Your task to perform on an android device: see creations saved in the google photos Image 0: 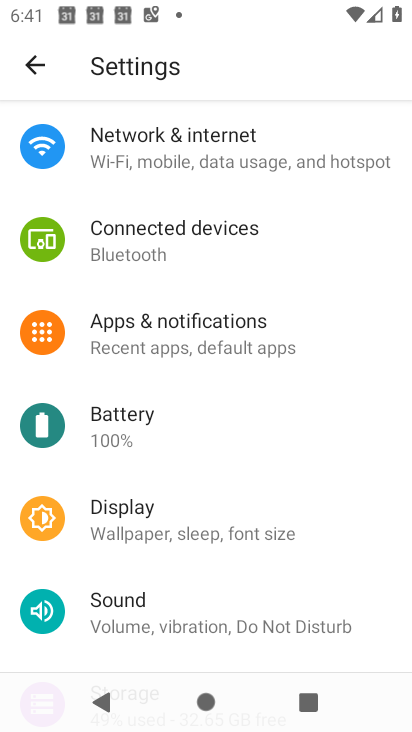
Step 0: press home button
Your task to perform on an android device: see creations saved in the google photos Image 1: 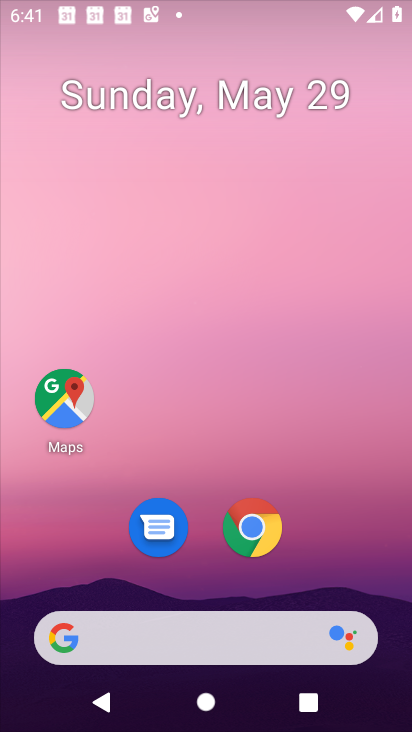
Step 1: drag from (317, 586) to (191, 74)
Your task to perform on an android device: see creations saved in the google photos Image 2: 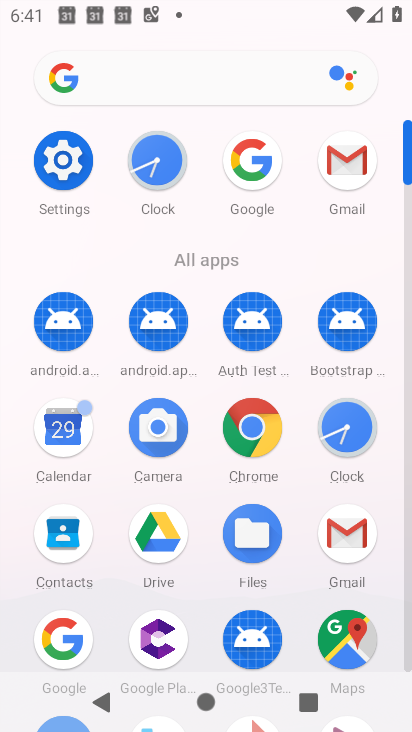
Step 2: drag from (229, 643) to (178, 210)
Your task to perform on an android device: see creations saved in the google photos Image 3: 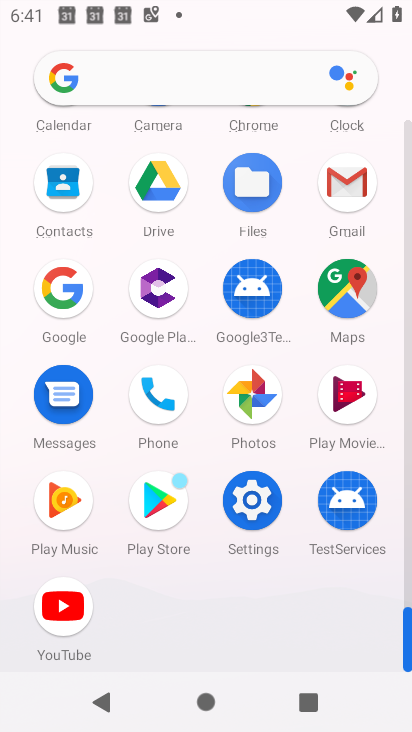
Step 3: click (266, 393)
Your task to perform on an android device: see creations saved in the google photos Image 4: 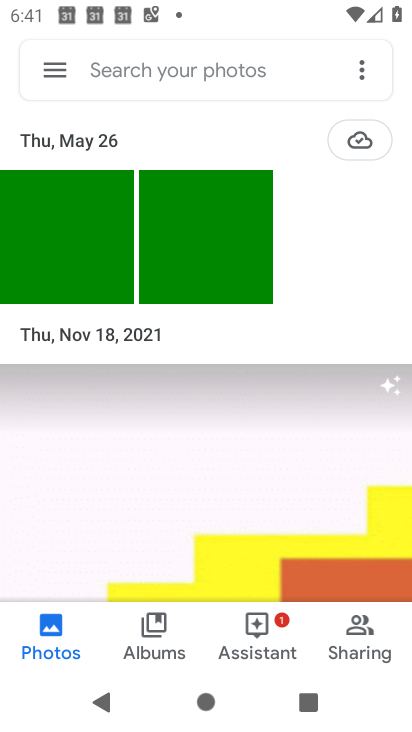
Step 4: click (155, 79)
Your task to perform on an android device: see creations saved in the google photos Image 5: 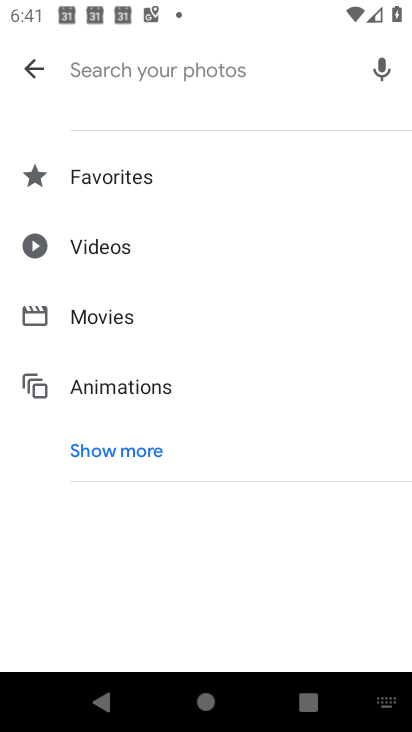
Step 5: click (104, 453)
Your task to perform on an android device: see creations saved in the google photos Image 6: 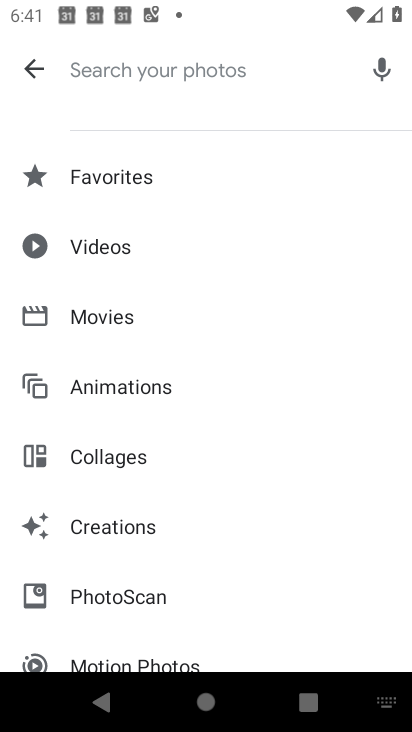
Step 6: click (94, 550)
Your task to perform on an android device: see creations saved in the google photos Image 7: 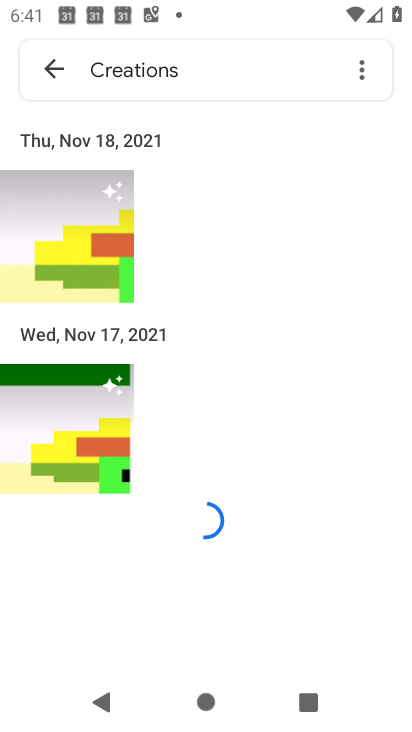
Step 7: task complete